Your task to perform on an android device: check google app version Image 0: 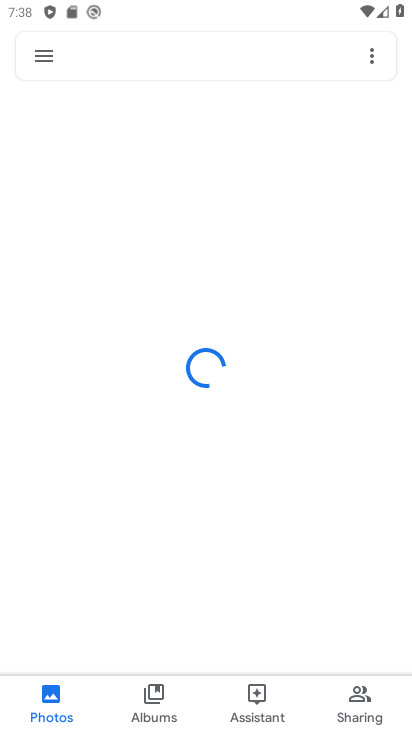
Step 0: press home button
Your task to perform on an android device: check google app version Image 1: 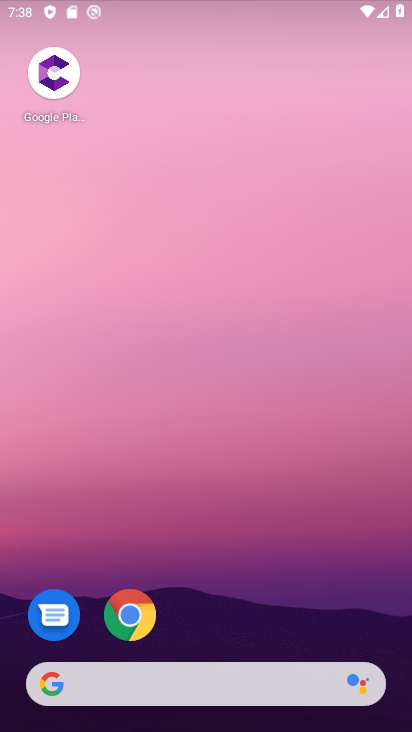
Step 1: drag from (263, 702) to (181, 366)
Your task to perform on an android device: check google app version Image 2: 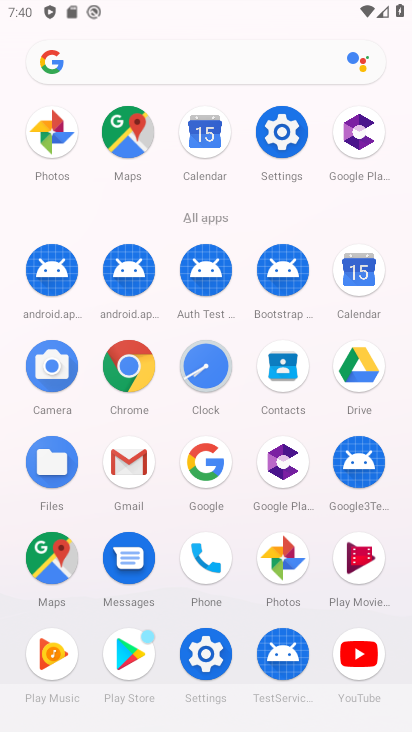
Step 2: click (139, 360)
Your task to perform on an android device: check google app version Image 3: 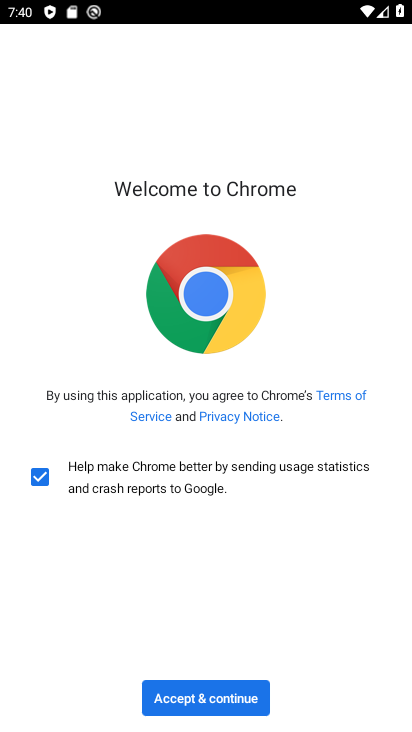
Step 3: click (180, 712)
Your task to perform on an android device: check google app version Image 4: 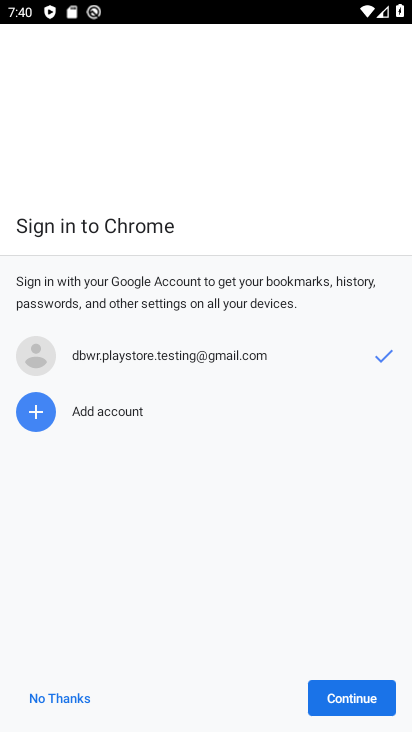
Step 4: click (330, 706)
Your task to perform on an android device: check google app version Image 5: 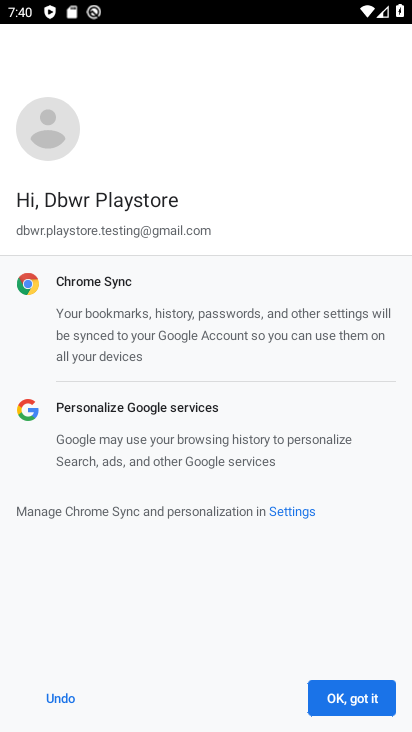
Step 5: click (376, 701)
Your task to perform on an android device: check google app version Image 6: 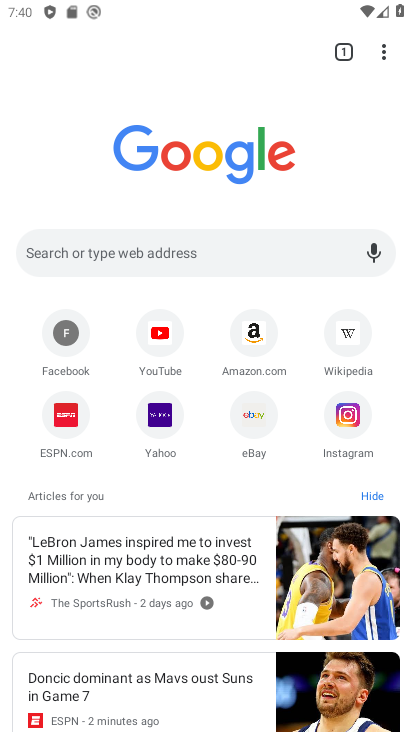
Step 6: click (388, 56)
Your task to perform on an android device: check google app version Image 7: 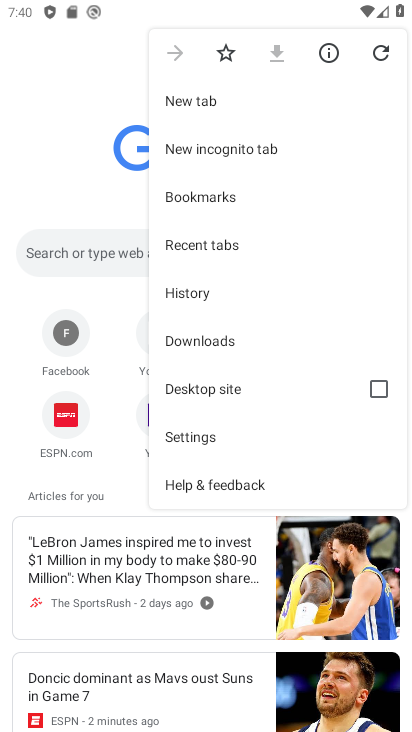
Step 7: click (187, 428)
Your task to perform on an android device: check google app version Image 8: 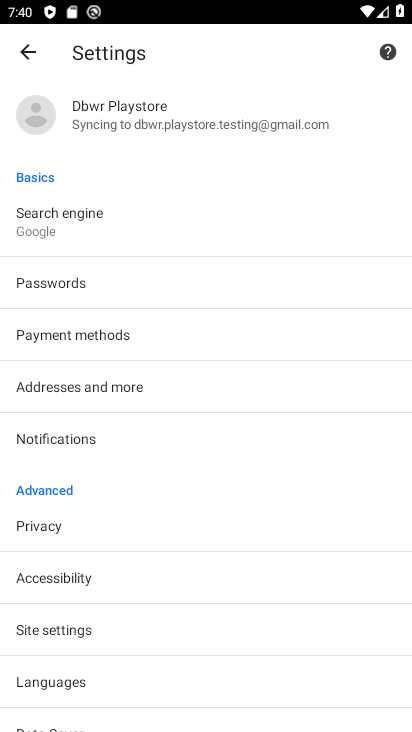
Step 8: drag from (175, 570) to (164, 304)
Your task to perform on an android device: check google app version Image 9: 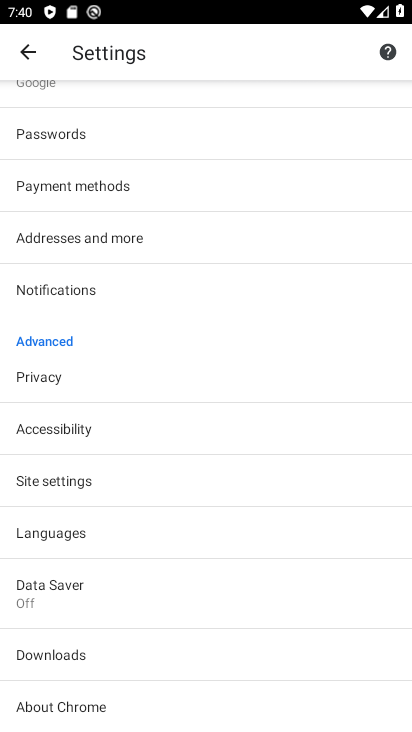
Step 9: drag from (135, 593) to (166, 417)
Your task to perform on an android device: check google app version Image 10: 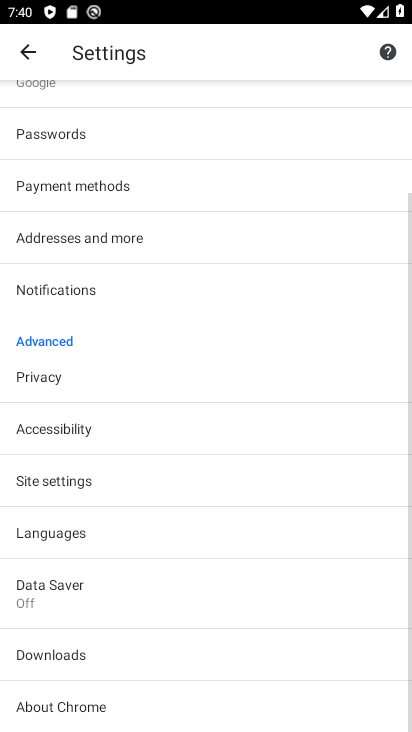
Step 10: click (69, 707)
Your task to perform on an android device: check google app version Image 11: 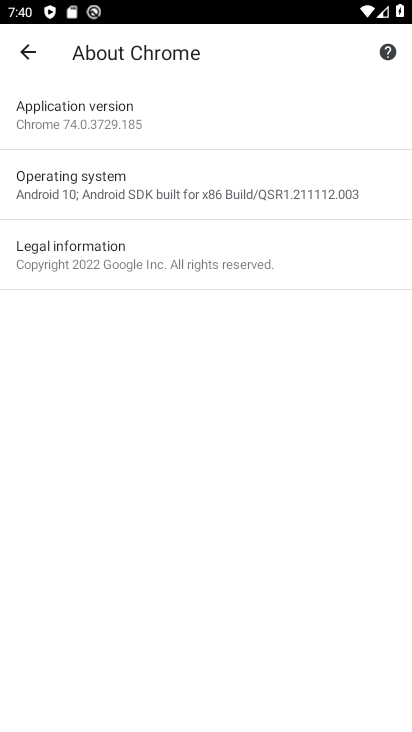
Step 11: click (142, 128)
Your task to perform on an android device: check google app version Image 12: 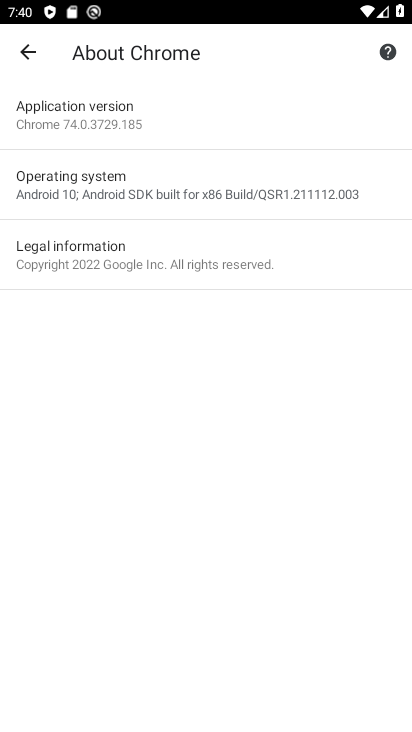
Step 12: task complete